Your task to perform on an android device: Search for the best rated headphones on amazon.com Image 0: 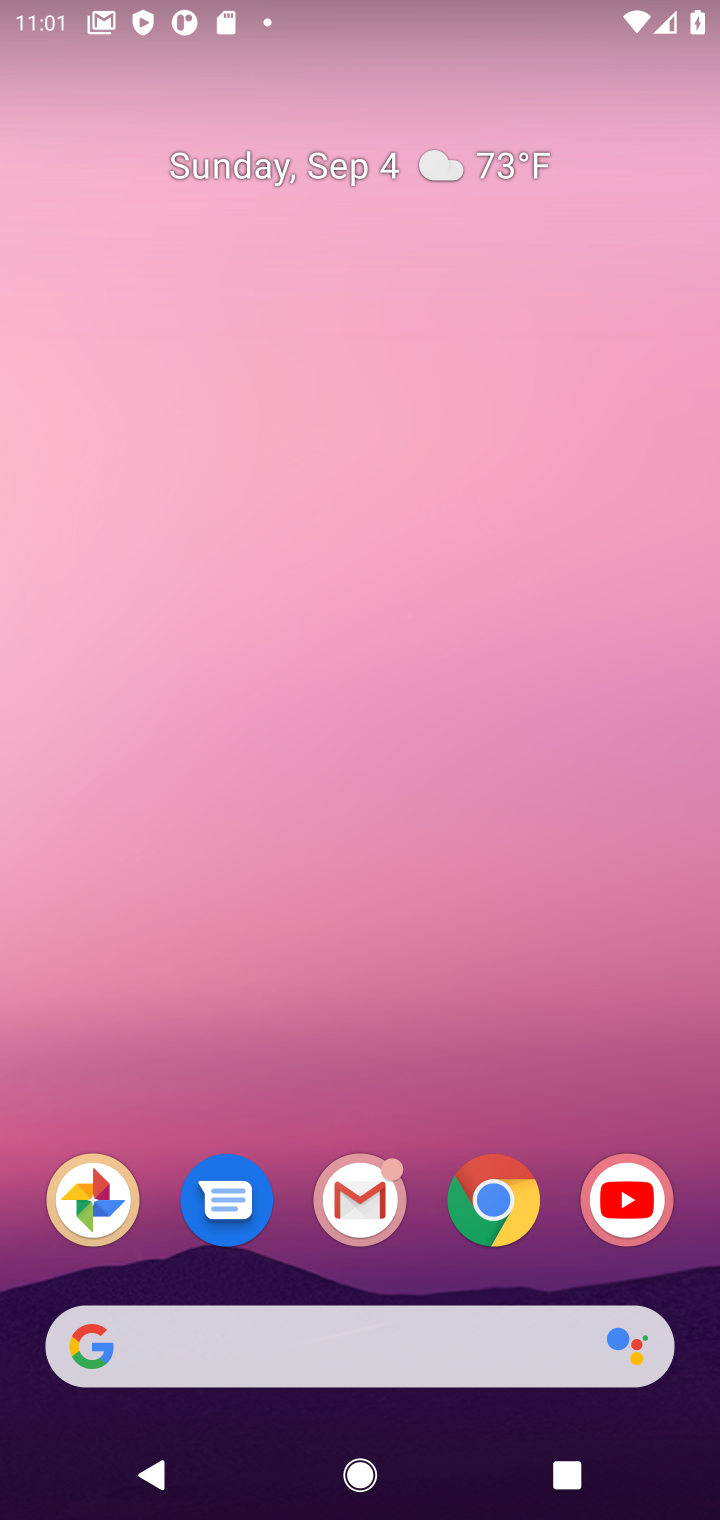
Step 0: click (482, 1224)
Your task to perform on an android device: Search for the best rated headphones on amazon.com Image 1: 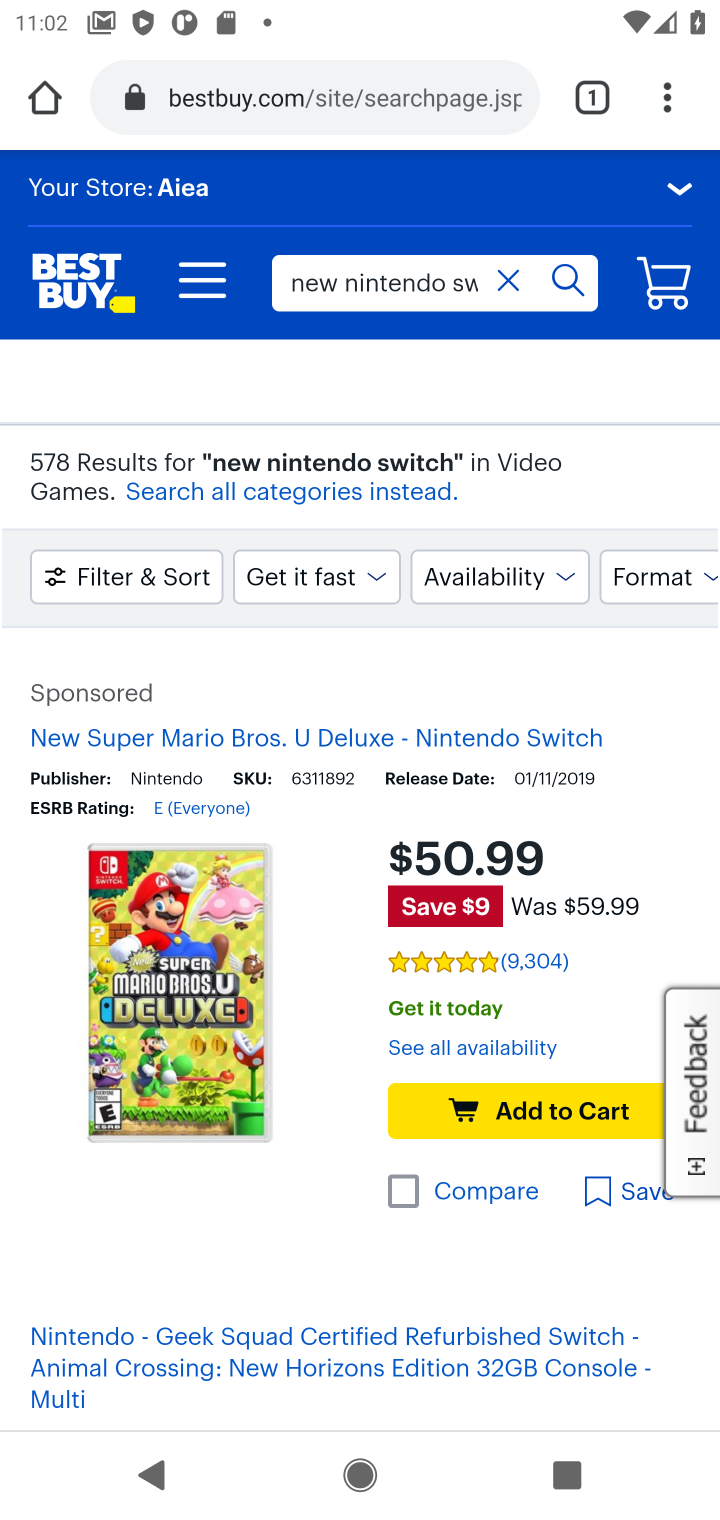
Step 1: click (452, 95)
Your task to perform on an android device: Search for the best rated headphones on amazon.com Image 2: 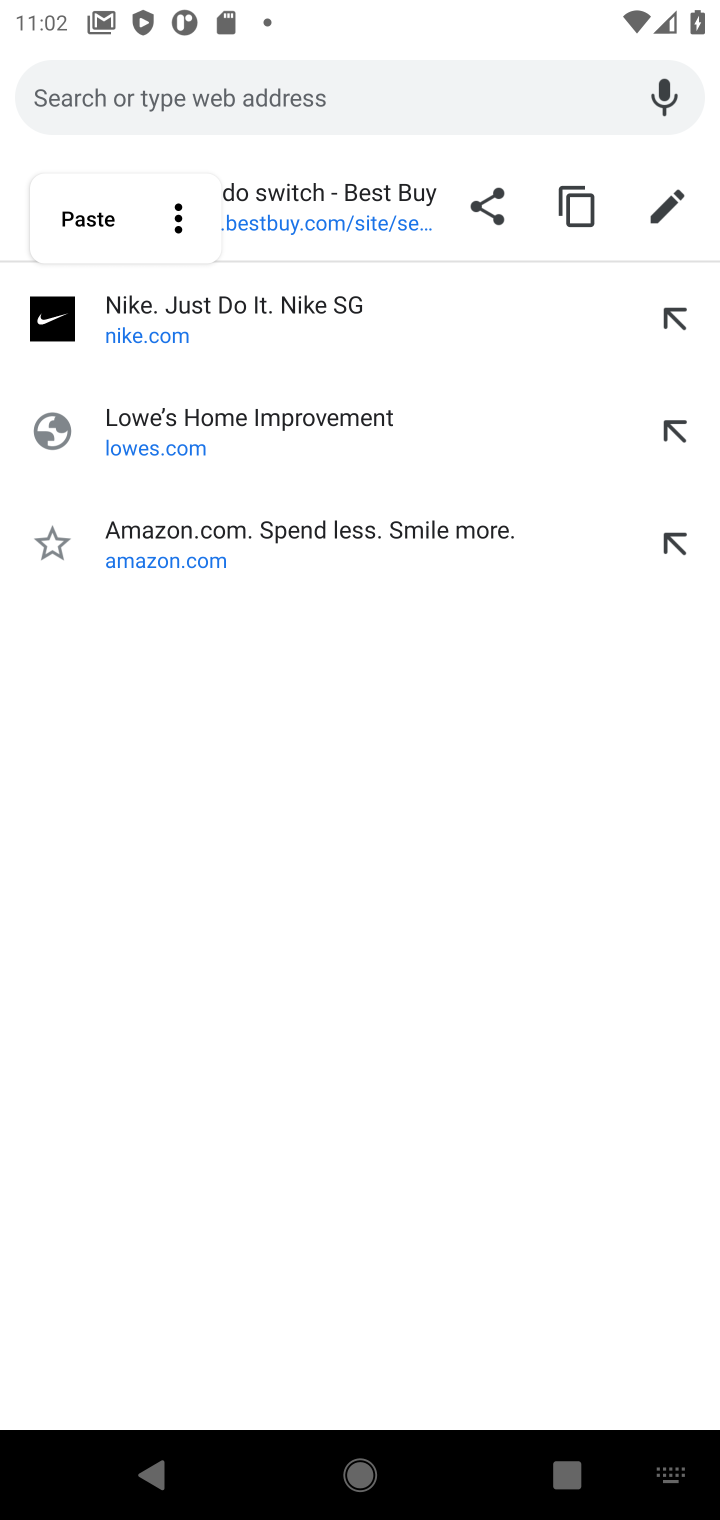
Step 2: type "amazon.com"
Your task to perform on an android device: Search for the best rated headphones on amazon.com Image 3: 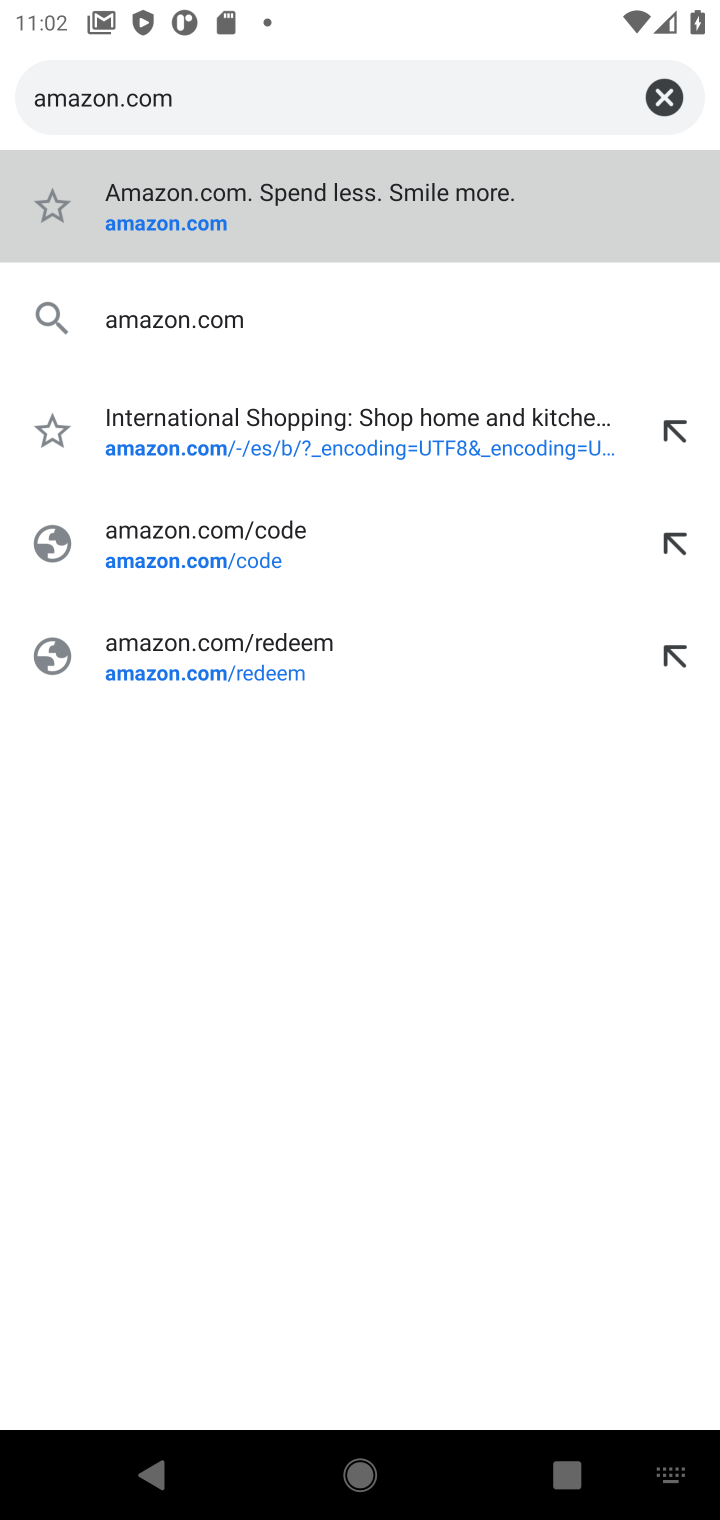
Step 3: click (398, 191)
Your task to perform on an android device: Search for the best rated headphones on amazon.com Image 4: 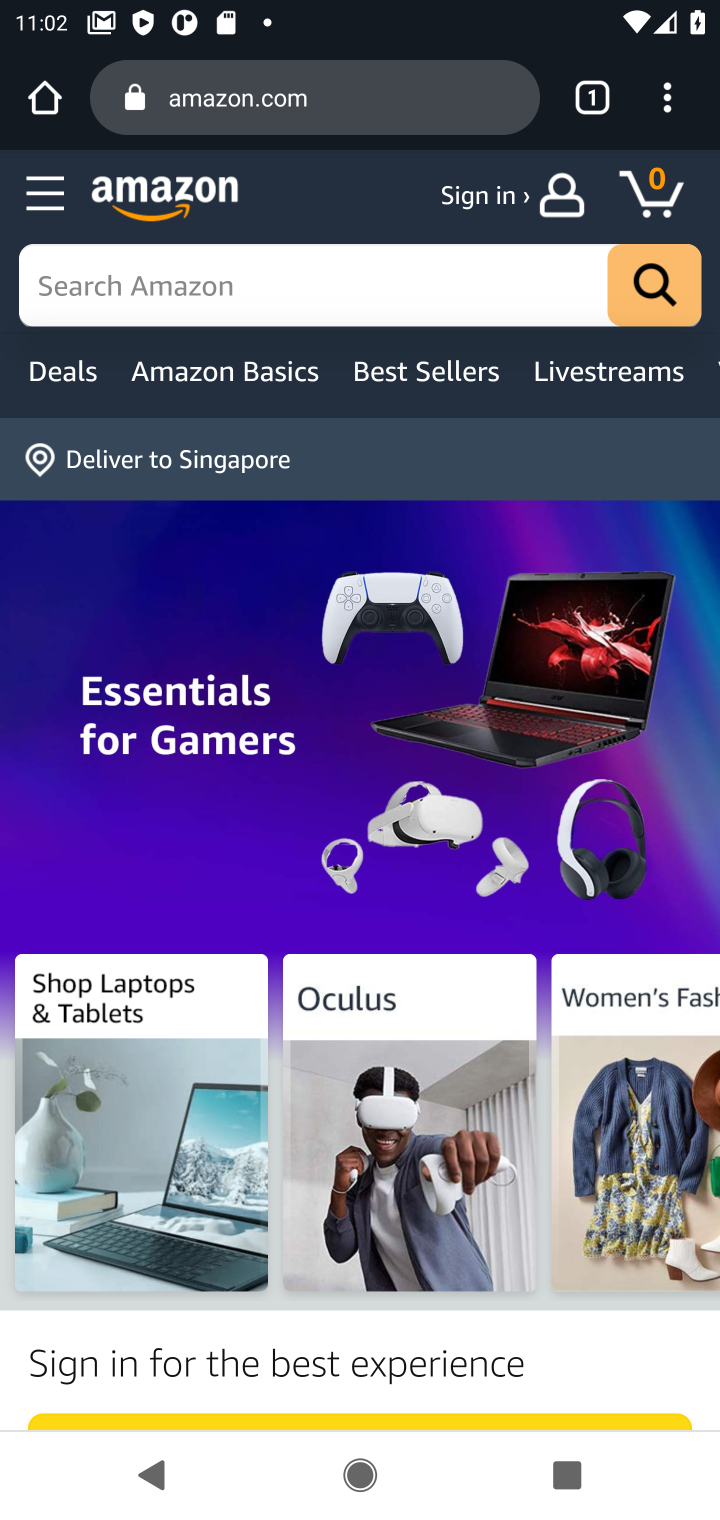
Step 4: click (475, 277)
Your task to perform on an android device: Search for the best rated headphones on amazon.com Image 5: 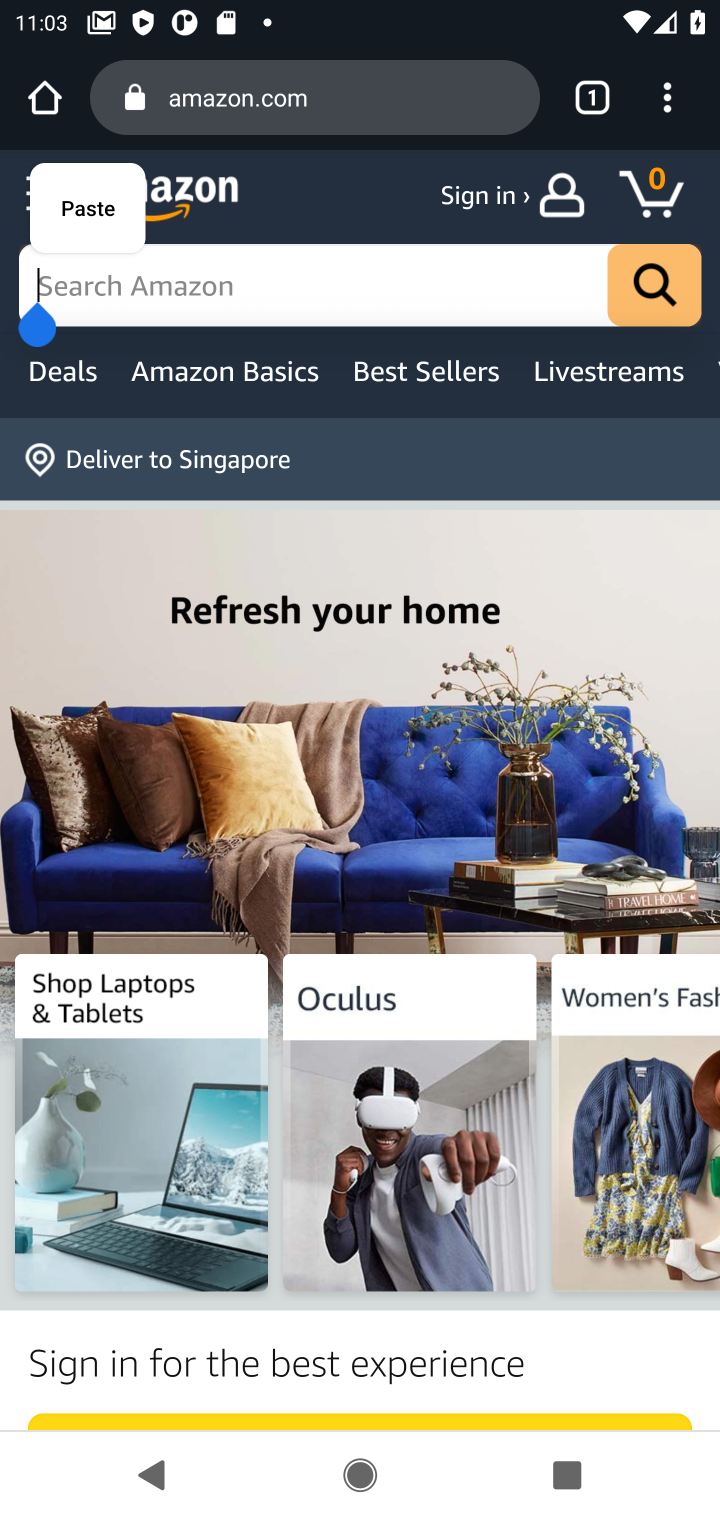
Step 5: type "best rated  headphones"
Your task to perform on an android device: Search for the best rated headphones on amazon.com Image 6: 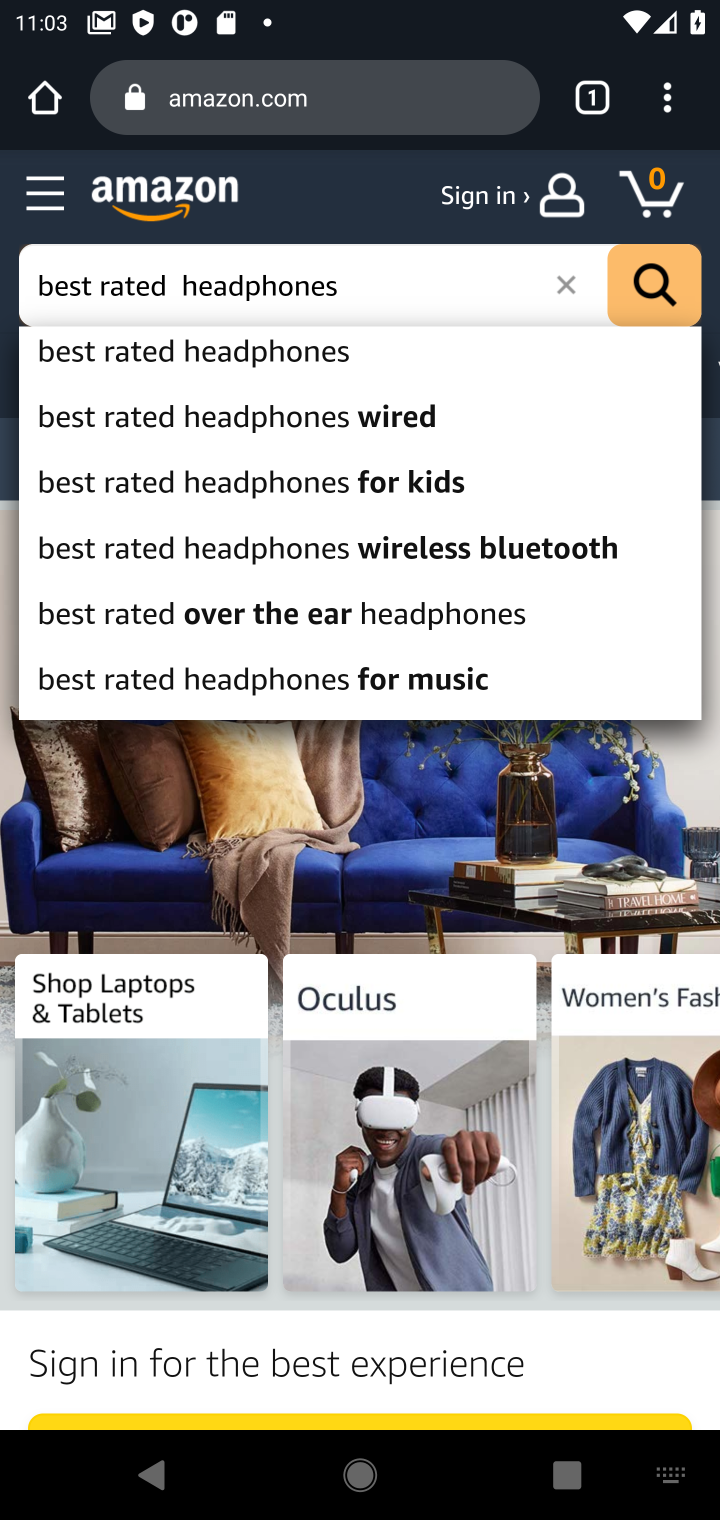
Step 6: click (533, 350)
Your task to perform on an android device: Search for the best rated headphones on amazon.com Image 7: 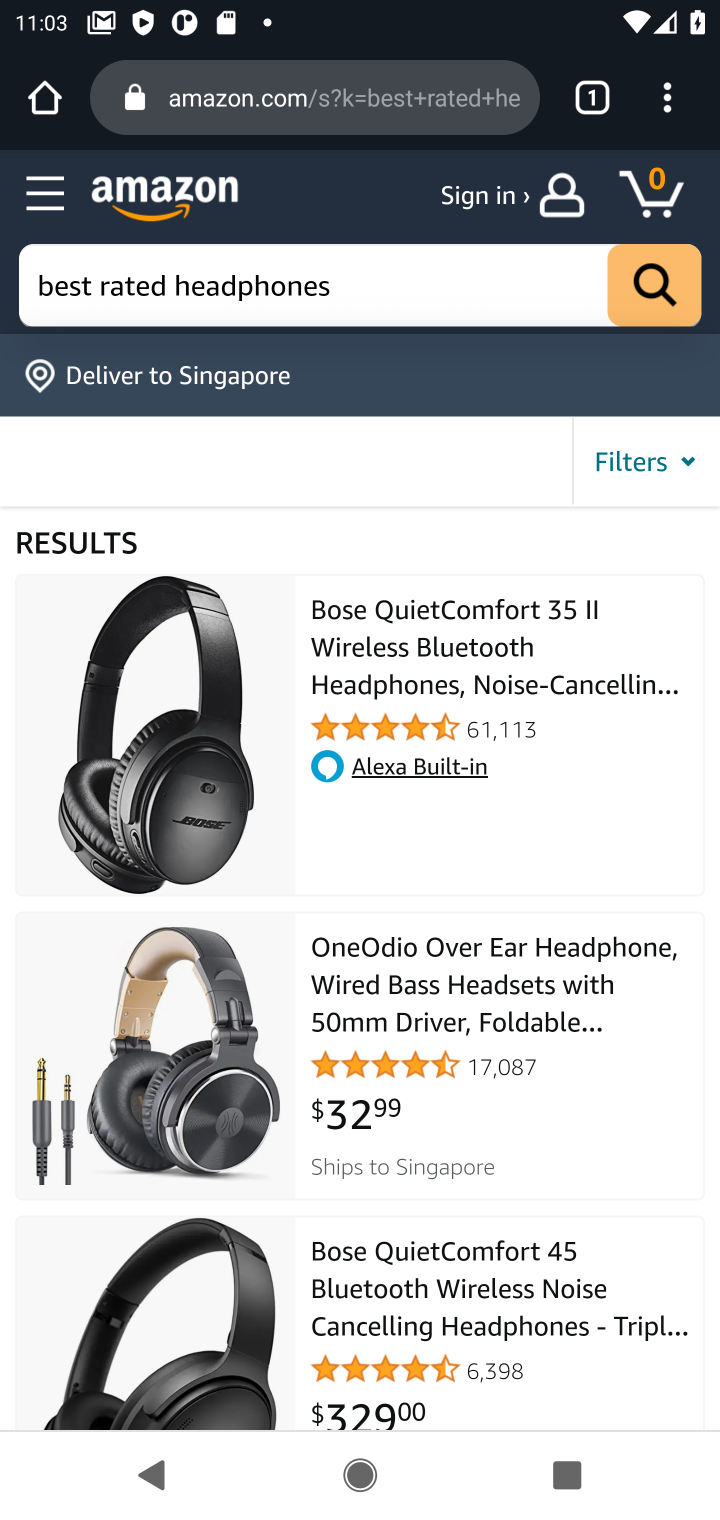
Step 7: task complete